Your task to perform on an android device: Open Google Maps Image 0: 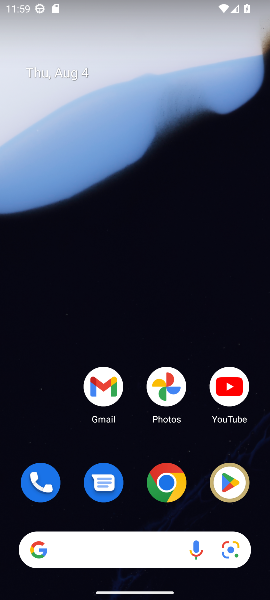
Step 0: drag from (154, 442) to (143, 139)
Your task to perform on an android device: Open Google Maps Image 1: 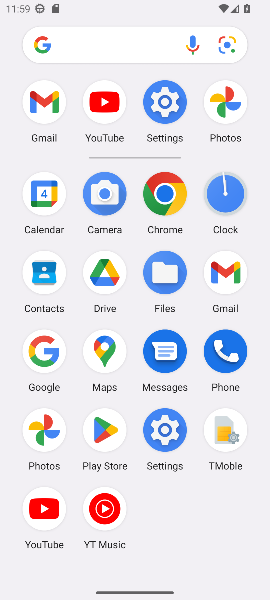
Step 1: click (110, 349)
Your task to perform on an android device: Open Google Maps Image 2: 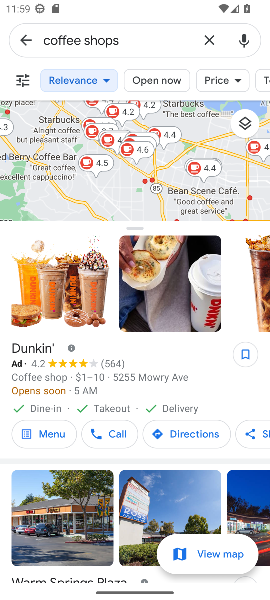
Step 2: task complete